Your task to perform on an android device: change notifications settings Image 0: 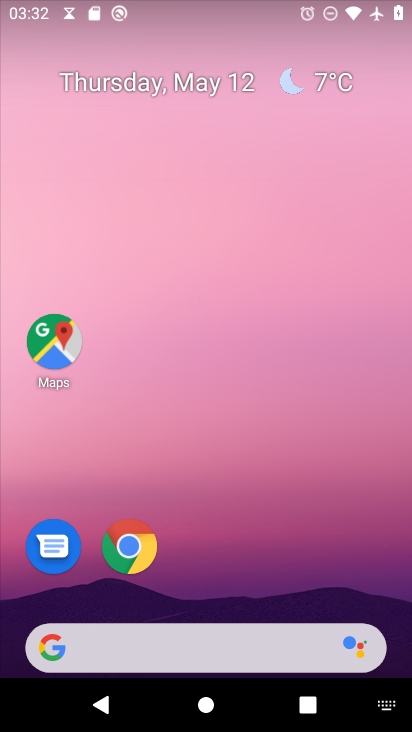
Step 0: drag from (177, 646) to (276, 139)
Your task to perform on an android device: change notifications settings Image 1: 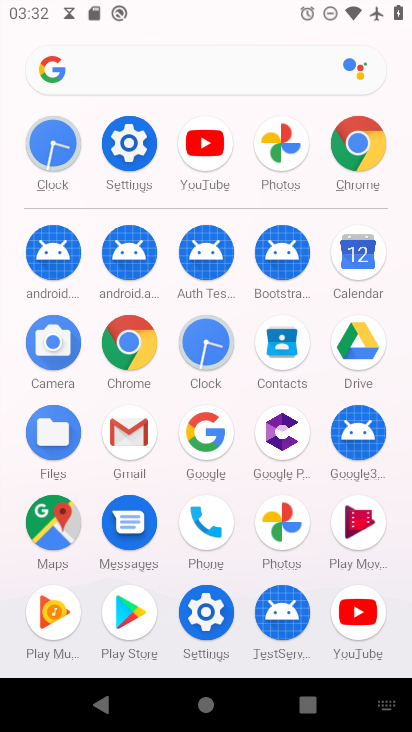
Step 1: click (138, 156)
Your task to perform on an android device: change notifications settings Image 2: 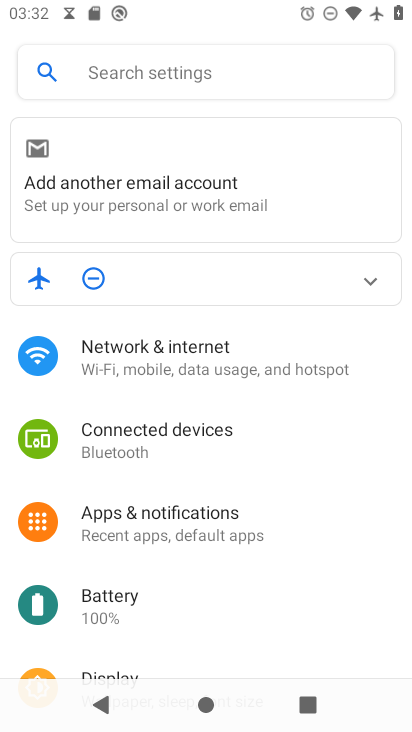
Step 2: click (187, 513)
Your task to perform on an android device: change notifications settings Image 3: 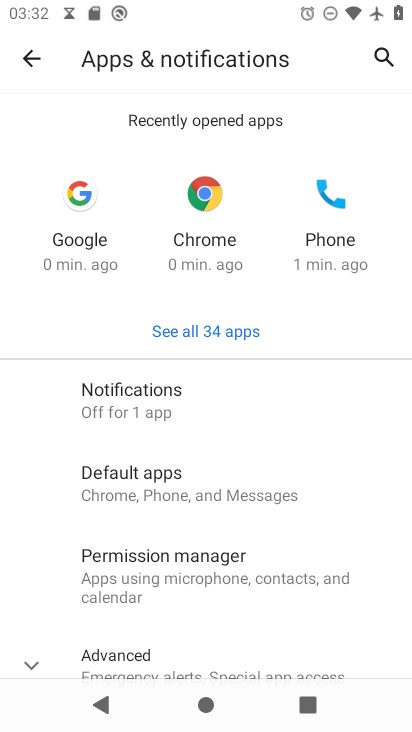
Step 3: click (146, 396)
Your task to perform on an android device: change notifications settings Image 4: 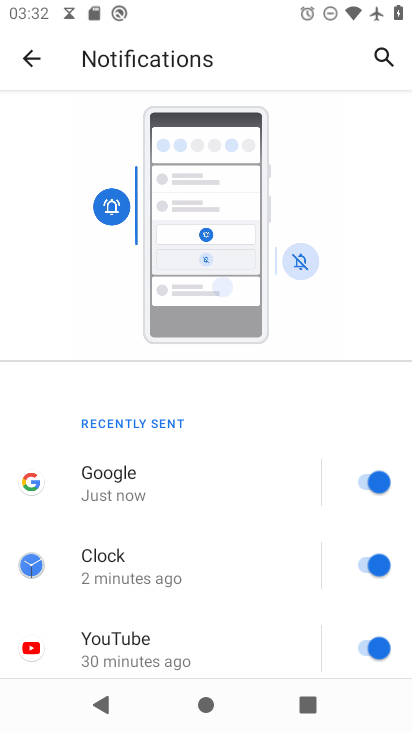
Step 4: task complete